Your task to perform on an android device: Open Google Chrome and click the shortcut for Amazon.com Image 0: 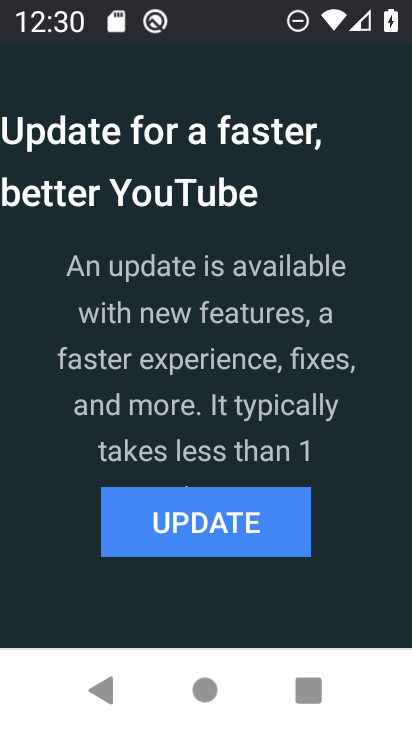
Step 0: press home button
Your task to perform on an android device: Open Google Chrome and click the shortcut for Amazon.com Image 1: 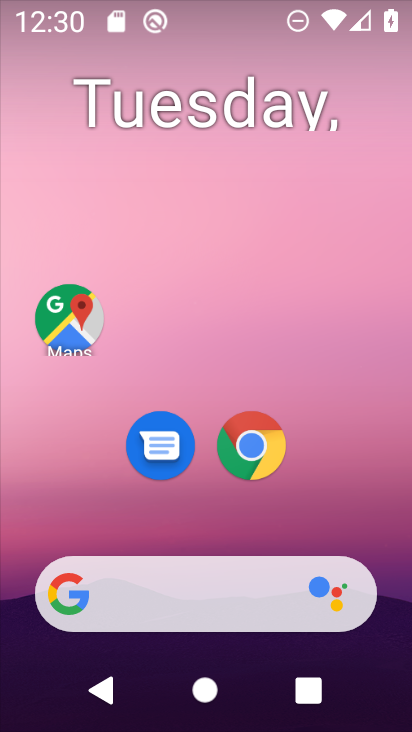
Step 1: drag from (389, 543) to (400, 270)
Your task to perform on an android device: Open Google Chrome and click the shortcut for Amazon.com Image 2: 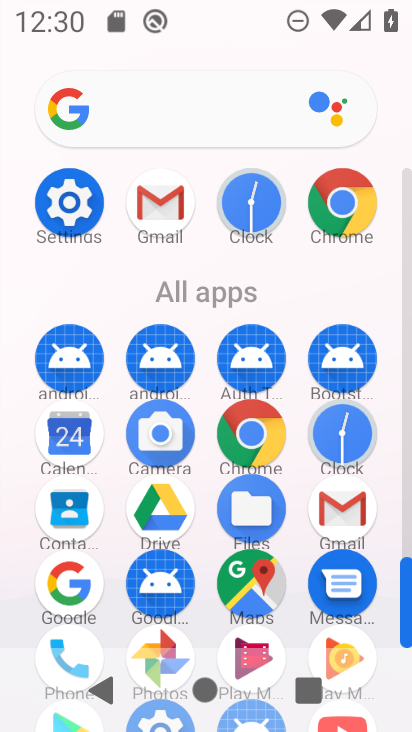
Step 2: drag from (386, 680) to (400, 429)
Your task to perform on an android device: Open Google Chrome and click the shortcut for Amazon.com Image 3: 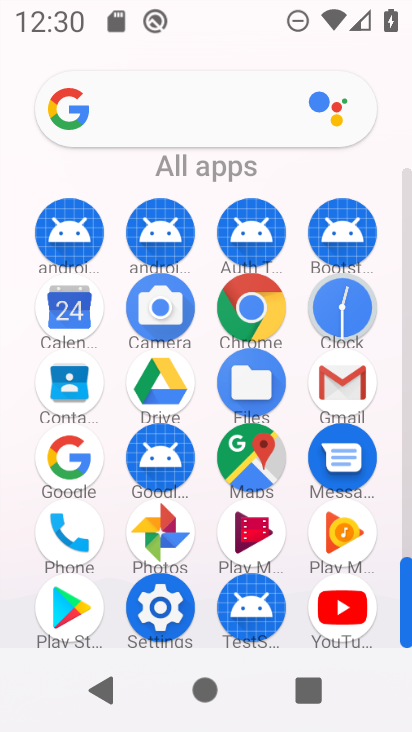
Step 3: click (244, 316)
Your task to perform on an android device: Open Google Chrome and click the shortcut for Amazon.com Image 4: 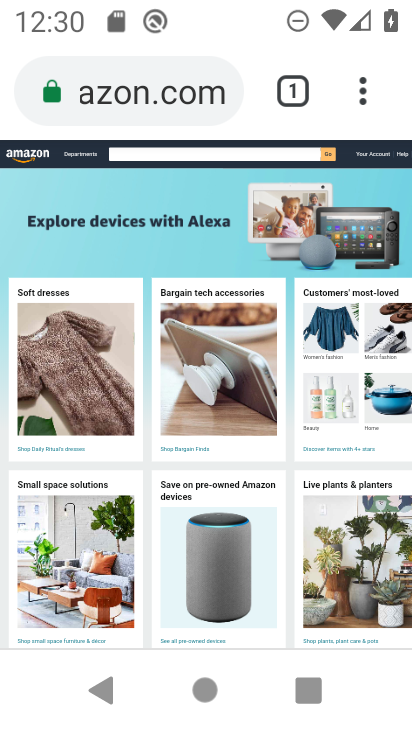
Step 4: task complete